Your task to perform on an android device: turn on showing notifications on the lock screen Image 0: 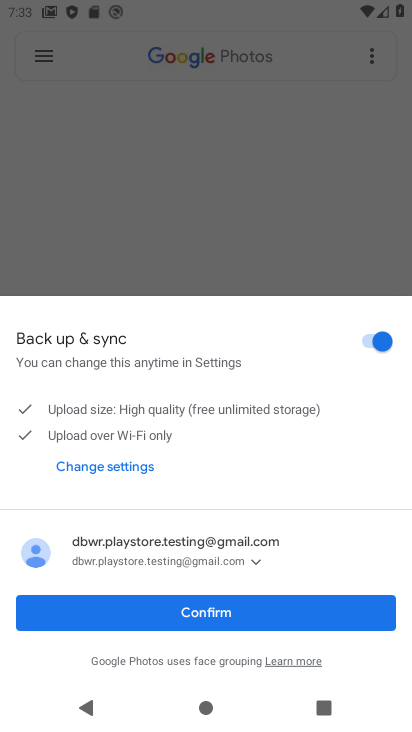
Step 0: press home button
Your task to perform on an android device: turn on showing notifications on the lock screen Image 1: 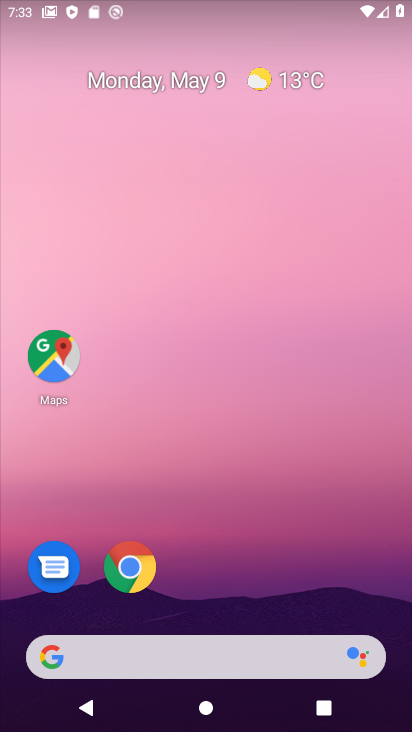
Step 1: drag from (265, 474) to (319, 36)
Your task to perform on an android device: turn on showing notifications on the lock screen Image 2: 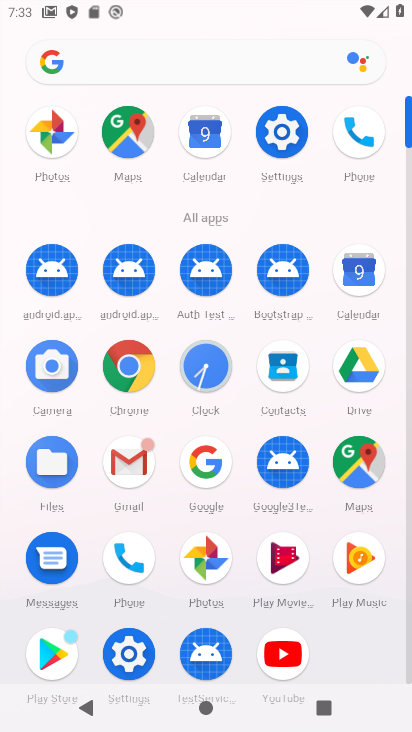
Step 2: click (277, 128)
Your task to perform on an android device: turn on showing notifications on the lock screen Image 3: 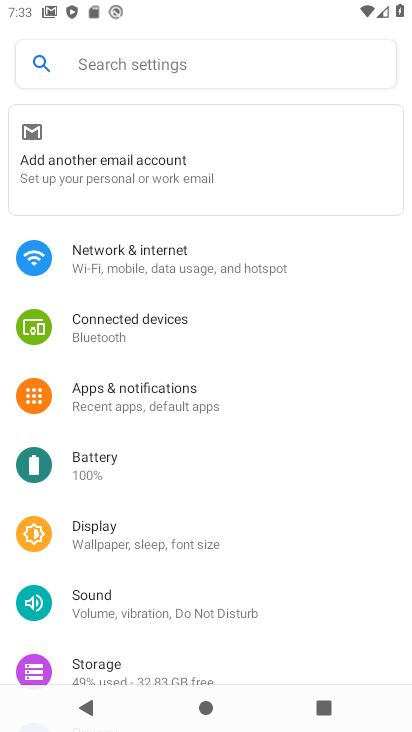
Step 3: click (177, 401)
Your task to perform on an android device: turn on showing notifications on the lock screen Image 4: 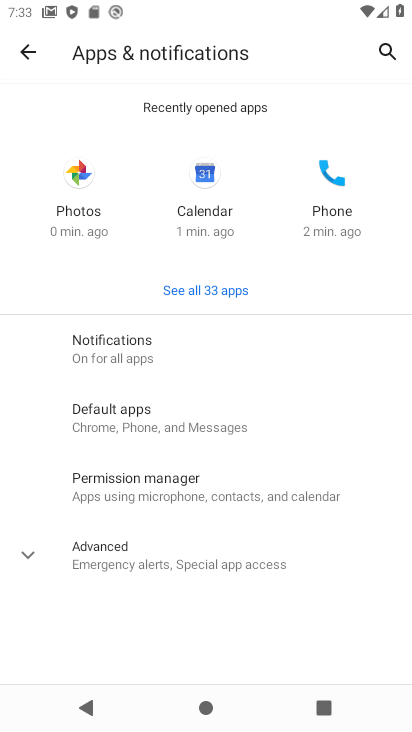
Step 4: click (134, 346)
Your task to perform on an android device: turn on showing notifications on the lock screen Image 5: 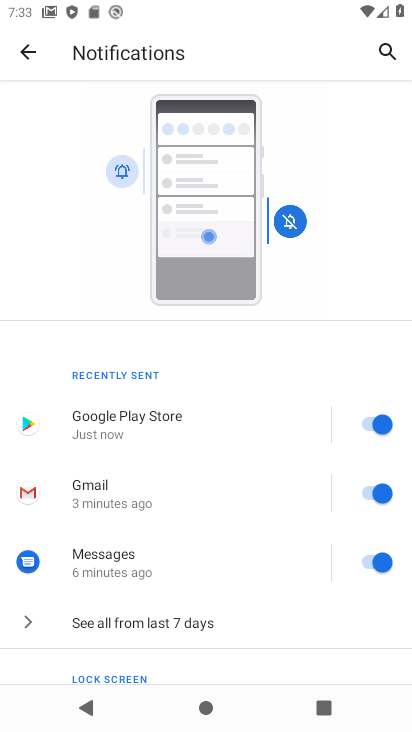
Step 5: drag from (228, 568) to (261, 158)
Your task to perform on an android device: turn on showing notifications on the lock screen Image 6: 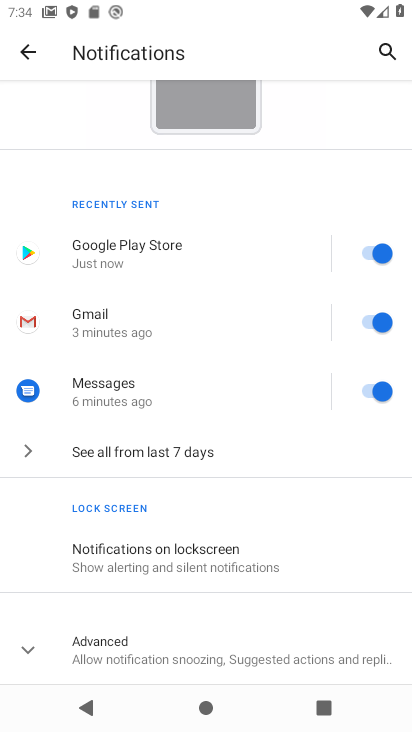
Step 6: click (199, 547)
Your task to perform on an android device: turn on showing notifications on the lock screen Image 7: 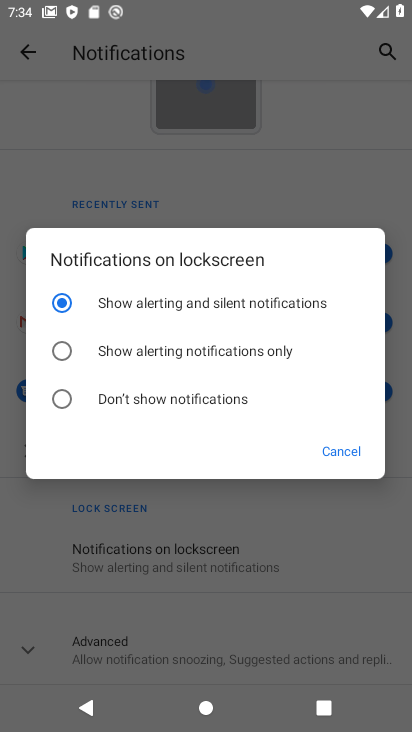
Step 7: click (347, 449)
Your task to perform on an android device: turn on showing notifications on the lock screen Image 8: 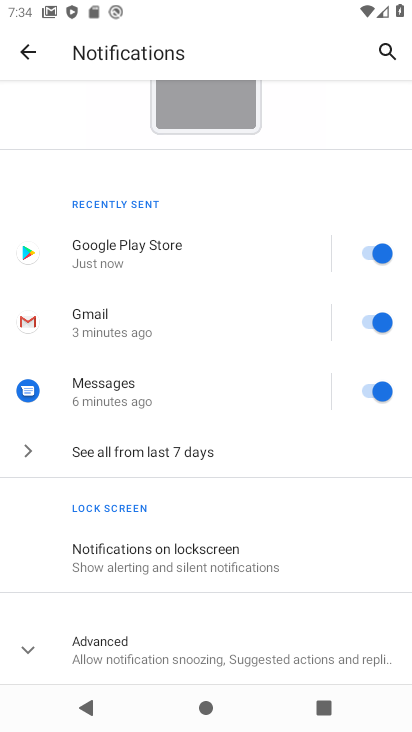
Step 8: task complete